Your task to perform on an android device: turn on wifi Image 0: 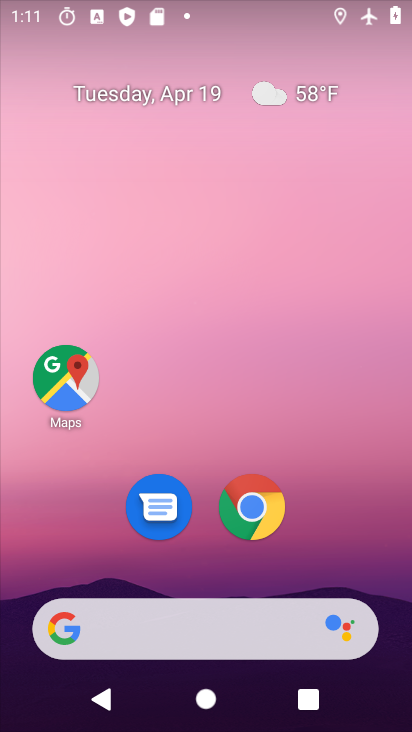
Step 0: drag from (208, 375) to (204, 11)
Your task to perform on an android device: turn on wifi Image 1: 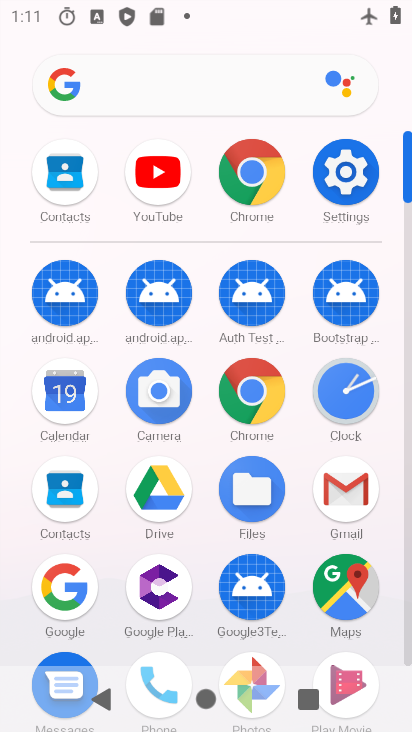
Step 1: click (349, 171)
Your task to perform on an android device: turn on wifi Image 2: 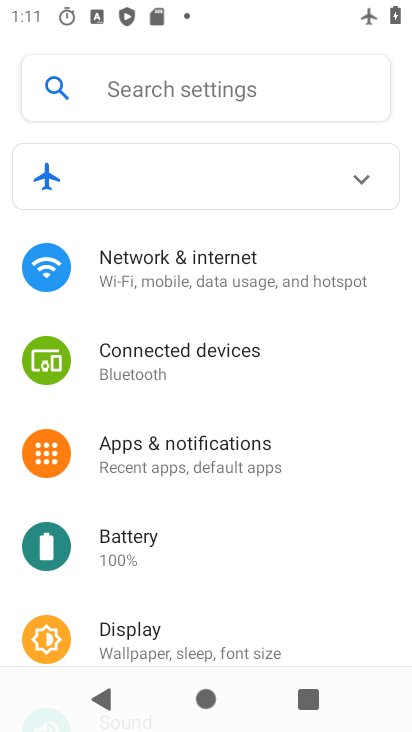
Step 2: click (158, 270)
Your task to perform on an android device: turn on wifi Image 3: 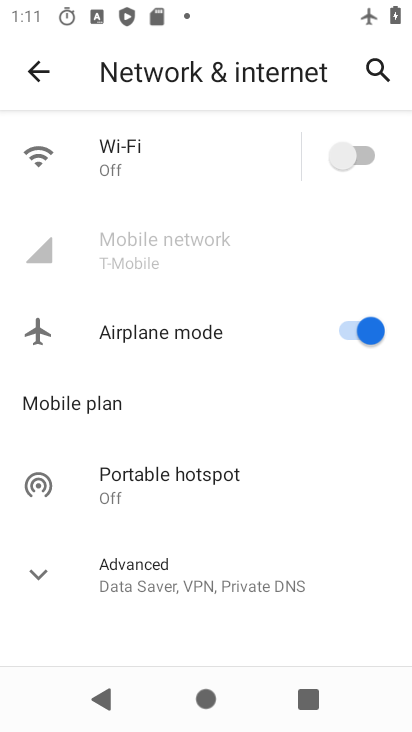
Step 3: click (349, 154)
Your task to perform on an android device: turn on wifi Image 4: 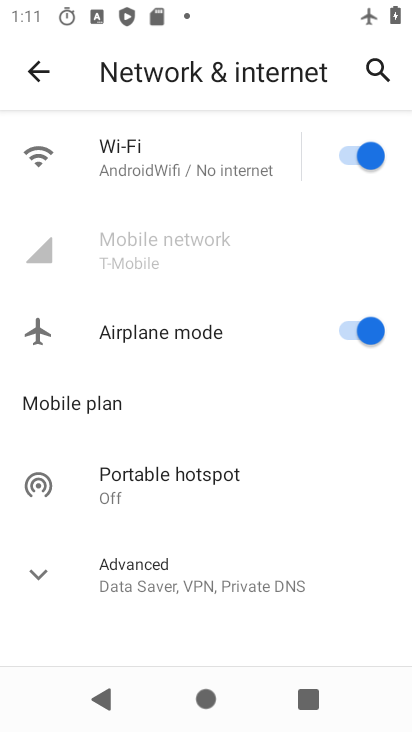
Step 4: task complete